Your task to perform on an android device: turn on data saver in the chrome app Image 0: 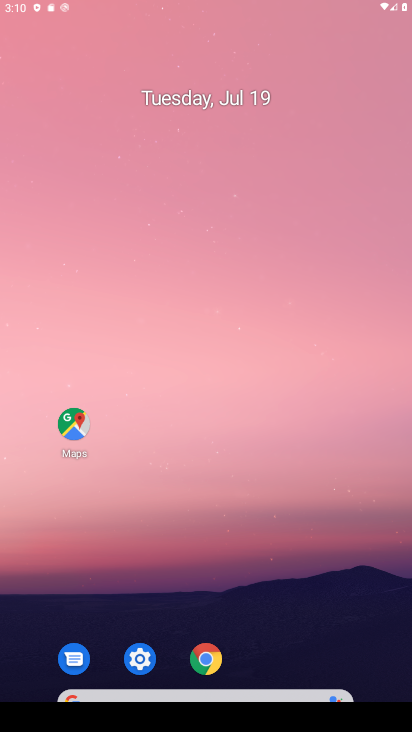
Step 0: drag from (196, 650) to (174, 205)
Your task to perform on an android device: turn on data saver in the chrome app Image 1: 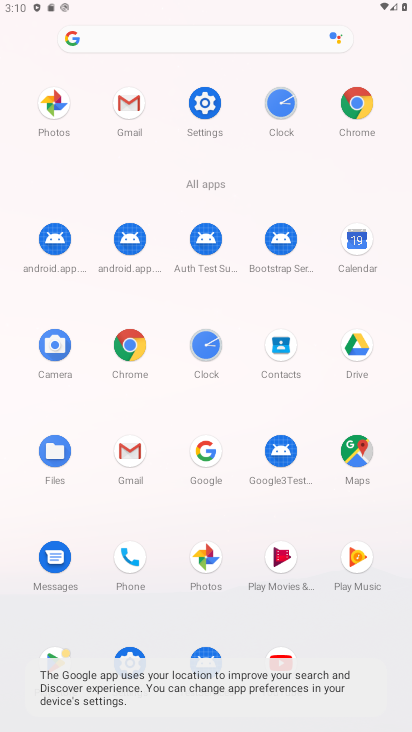
Step 1: click (357, 98)
Your task to perform on an android device: turn on data saver in the chrome app Image 2: 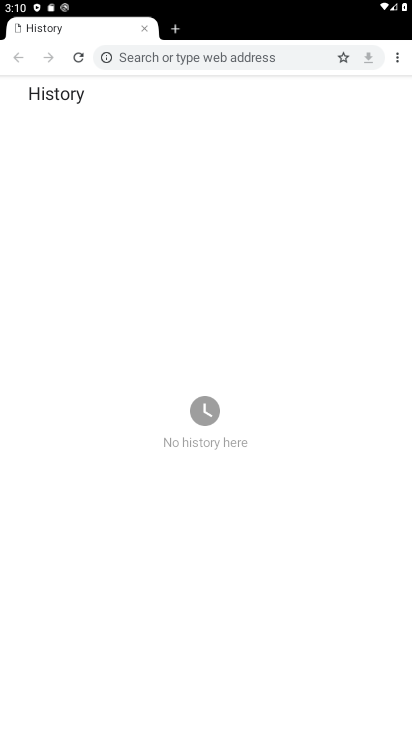
Step 2: drag from (392, 55) to (291, 264)
Your task to perform on an android device: turn on data saver in the chrome app Image 3: 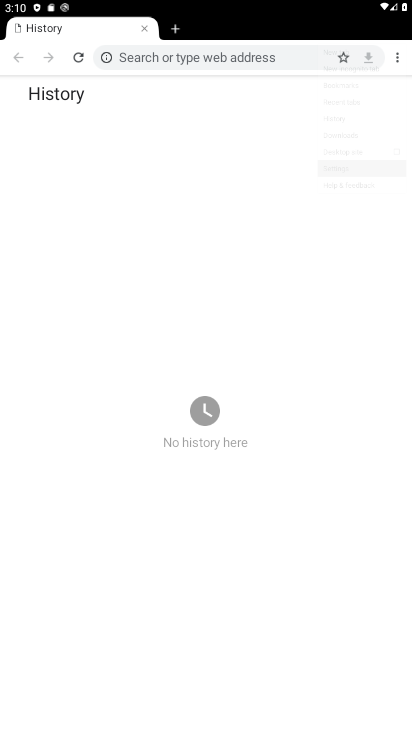
Step 3: click (291, 264)
Your task to perform on an android device: turn on data saver in the chrome app Image 4: 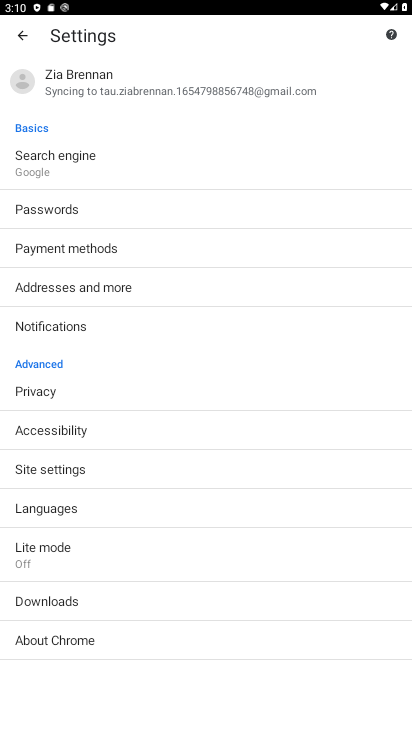
Step 4: click (41, 540)
Your task to perform on an android device: turn on data saver in the chrome app Image 5: 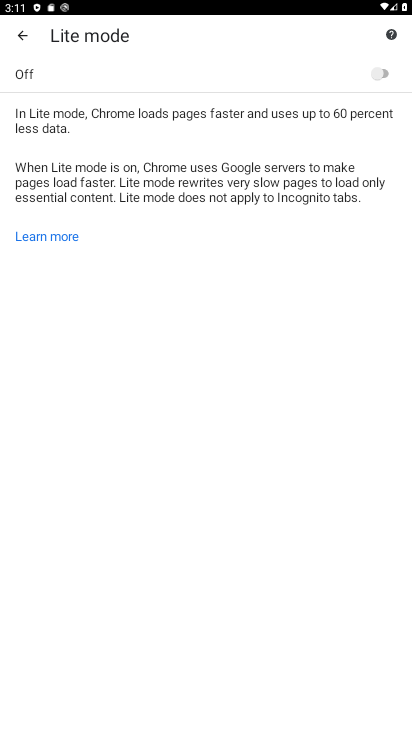
Step 5: click (379, 65)
Your task to perform on an android device: turn on data saver in the chrome app Image 6: 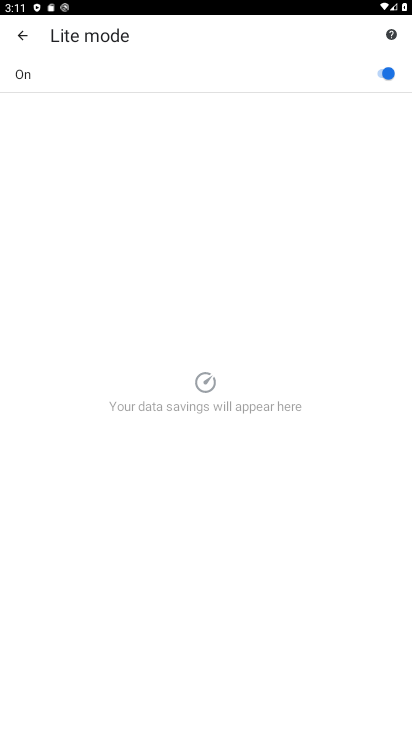
Step 6: task complete